Your task to perform on an android device: Open calendar and show me the first week of next month Image 0: 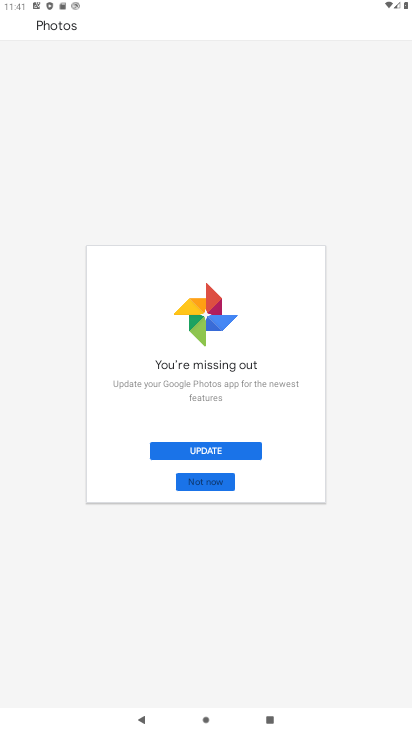
Step 0: press home button
Your task to perform on an android device: Open calendar and show me the first week of next month Image 1: 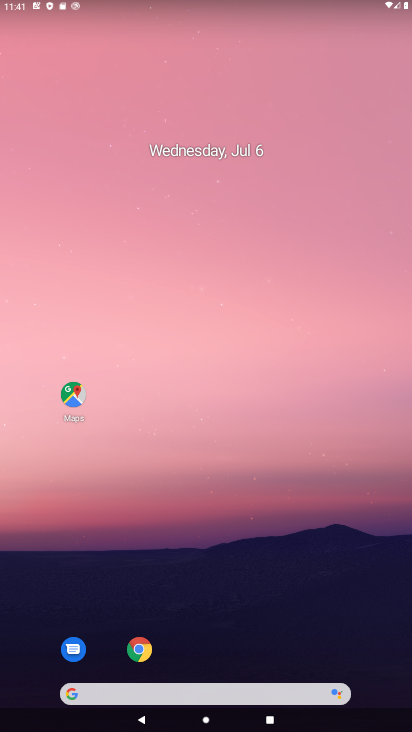
Step 1: drag from (29, 695) to (223, 4)
Your task to perform on an android device: Open calendar and show me the first week of next month Image 2: 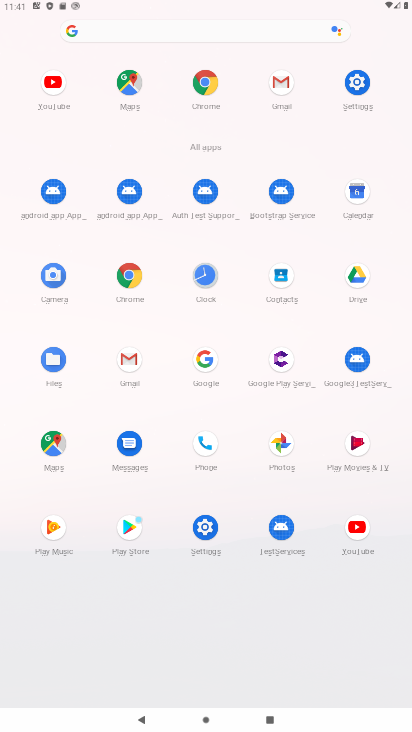
Step 2: click (362, 192)
Your task to perform on an android device: Open calendar and show me the first week of next month Image 3: 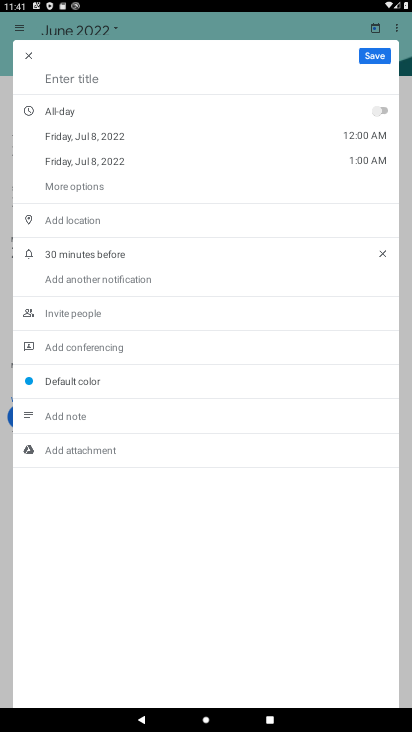
Step 3: click (27, 61)
Your task to perform on an android device: Open calendar and show me the first week of next month Image 4: 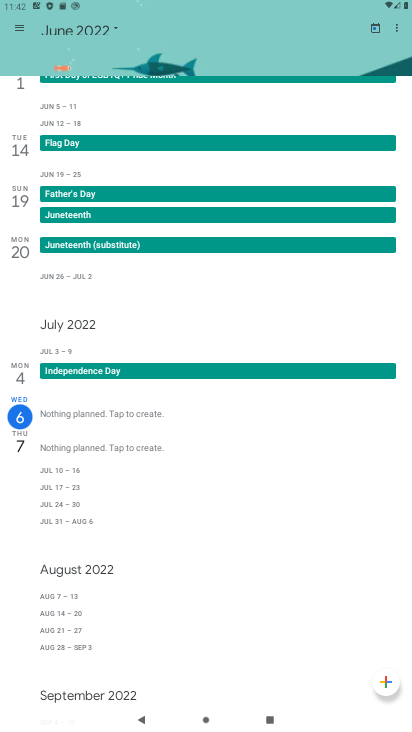
Step 4: click (66, 27)
Your task to perform on an android device: Open calendar and show me the first week of next month Image 5: 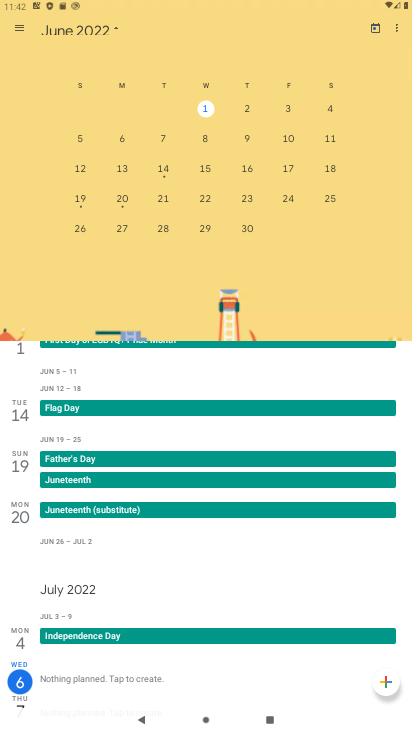
Step 5: click (82, 32)
Your task to perform on an android device: Open calendar and show me the first week of next month Image 6: 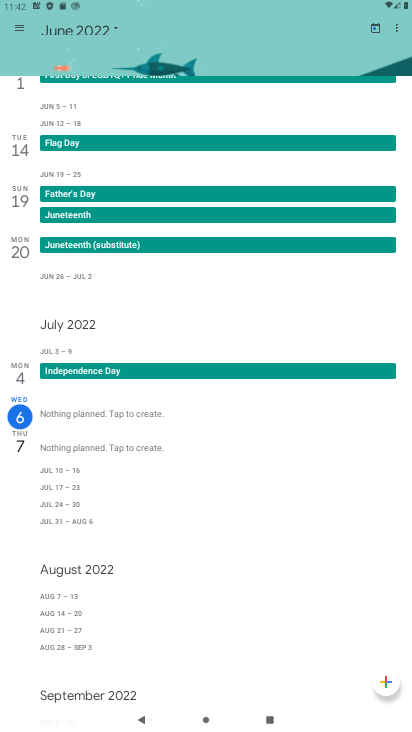
Step 6: click (114, 33)
Your task to perform on an android device: Open calendar and show me the first week of next month Image 7: 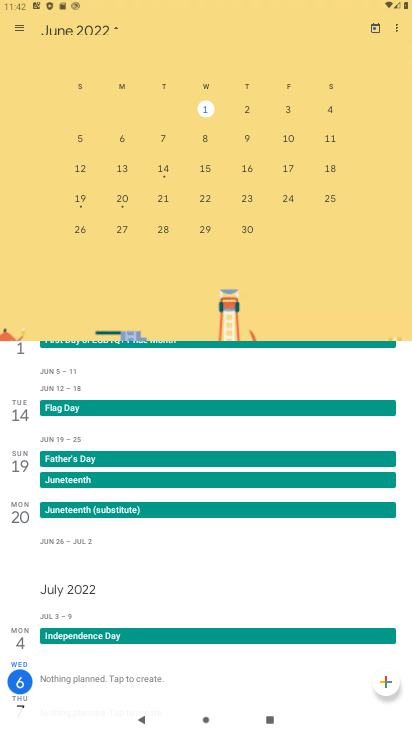
Step 7: click (109, 29)
Your task to perform on an android device: Open calendar and show me the first week of next month Image 8: 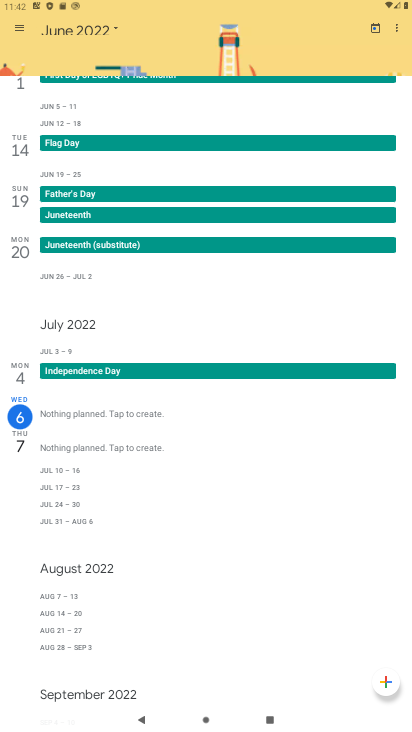
Step 8: drag from (167, 133) to (0, 131)
Your task to perform on an android device: Open calendar and show me the first week of next month Image 9: 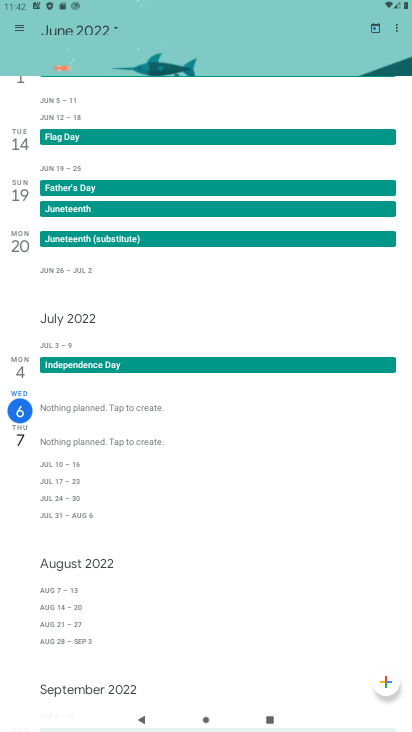
Step 9: click (116, 30)
Your task to perform on an android device: Open calendar and show me the first week of next month Image 10: 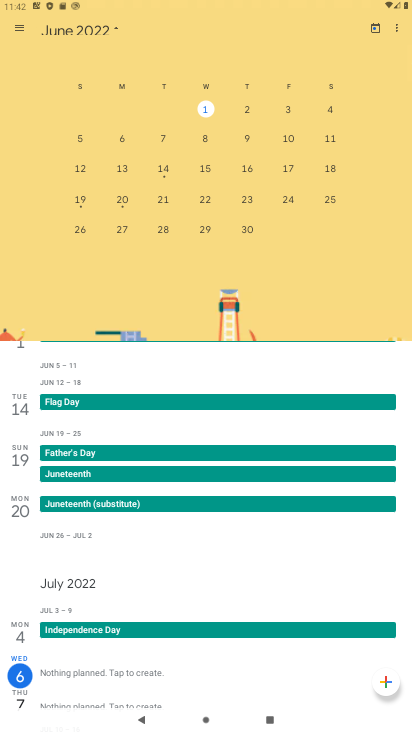
Step 10: drag from (366, 109) to (12, 105)
Your task to perform on an android device: Open calendar and show me the first week of next month Image 11: 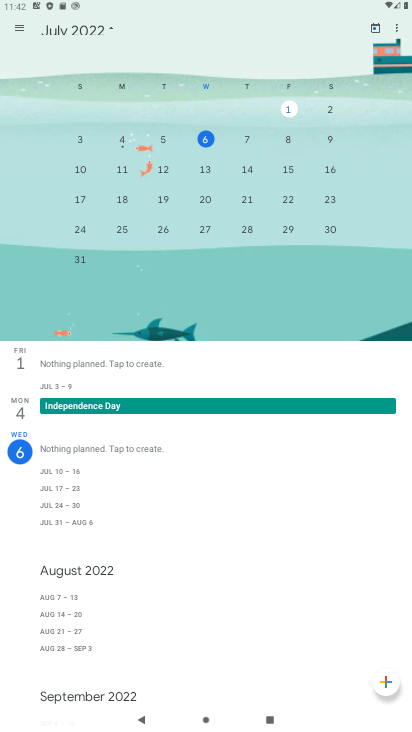
Step 11: drag from (300, 153) to (23, 245)
Your task to perform on an android device: Open calendar and show me the first week of next month Image 12: 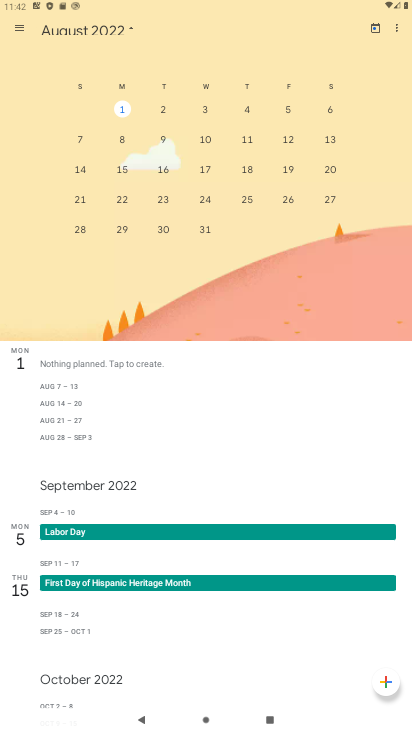
Step 12: click (123, 107)
Your task to perform on an android device: Open calendar and show me the first week of next month Image 13: 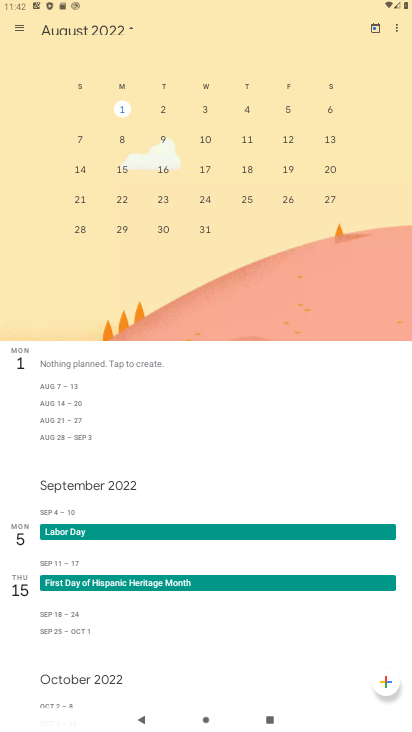
Step 13: task complete